Your task to perform on an android device: change the clock display to analog Image 0: 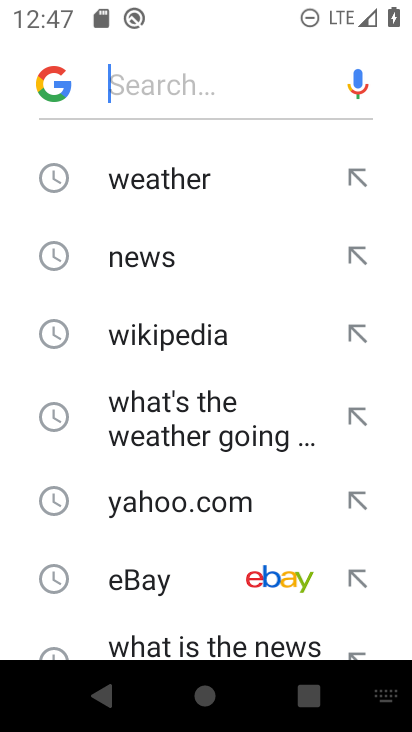
Step 0: press home button
Your task to perform on an android device: change the clock display to analog Image 1: 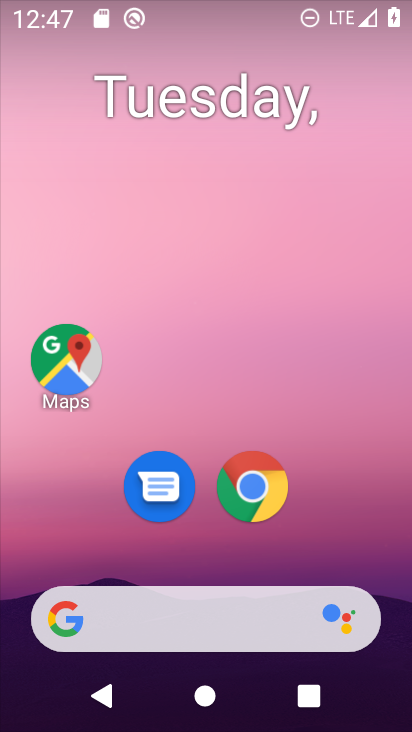
Step 1: drag from (208, 411) to (223, 117)
Your task to perform on an android device: change the clock display to analog Image 2: 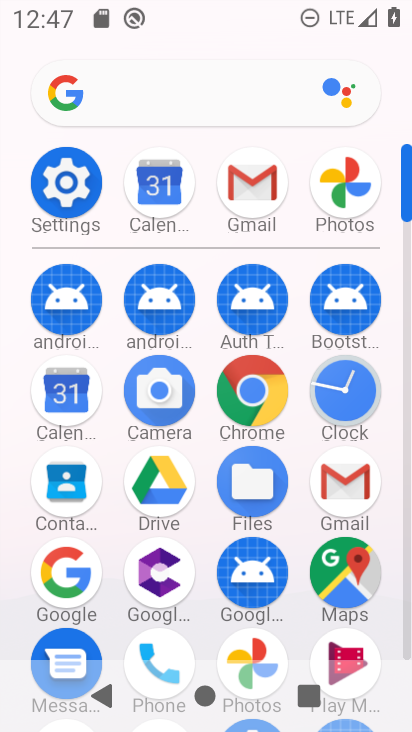
Step 2: click (354, 381)
Your task to perform on an android device: change the clock display to analog Image 3: 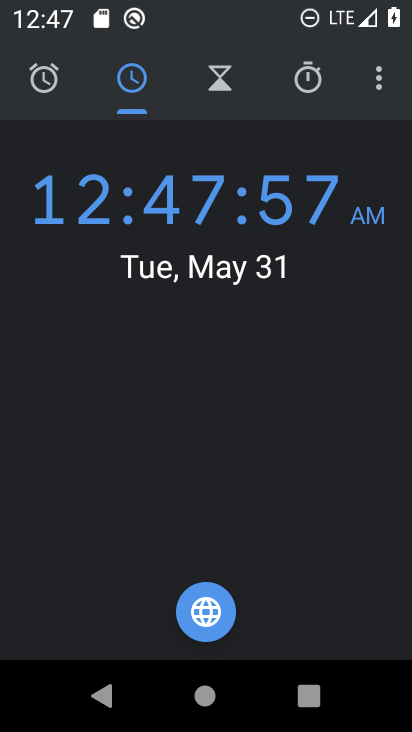
Step 3: click (380, 87)
Your task to perform on an android device: change the clock display to analog Image 4: 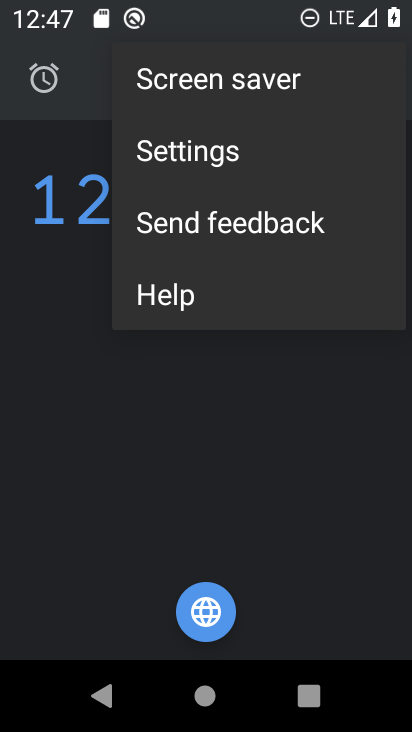
Step 4: click (277, 162)
Your task to perform on an android device: change the clock display to analog Image 5: 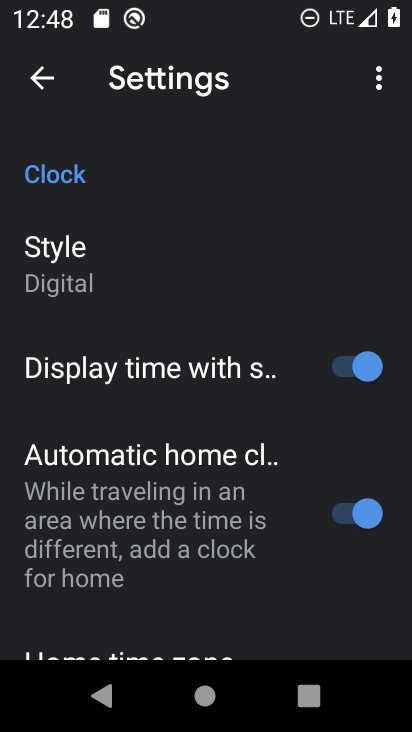
Step 5: click (109, 285)
Your task to perform on an android device: change the clock display to analog Image 6: 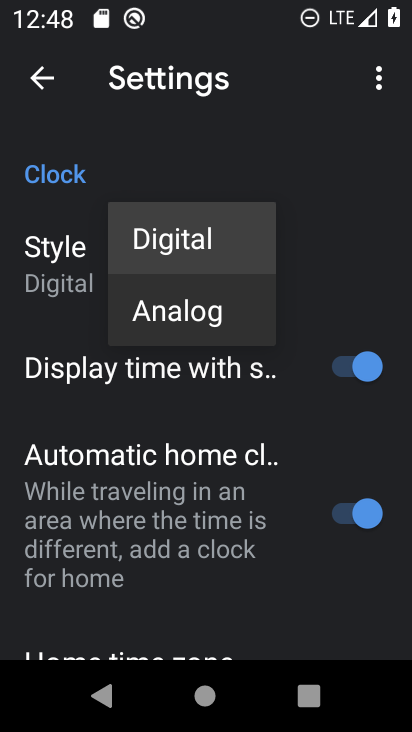
Step 6: click (215, 327)
Your task to perform on an android device: change the clock display to analog Image 7: 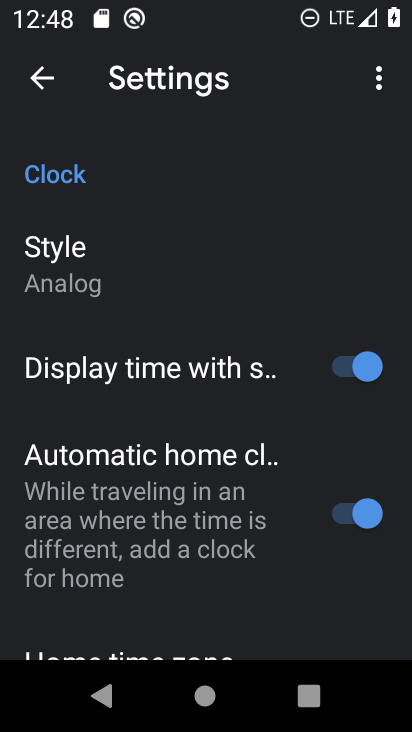
Step 7: task complete